Your task to perform on an android device: Open a new Chrome incognito tab Image 0: 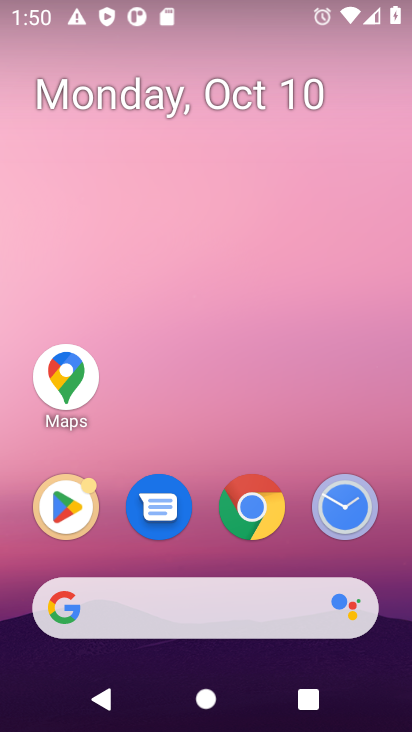
Step 0: press home button
Your task to perform on an android device: Open a new Chrome incognito tab Image 1: 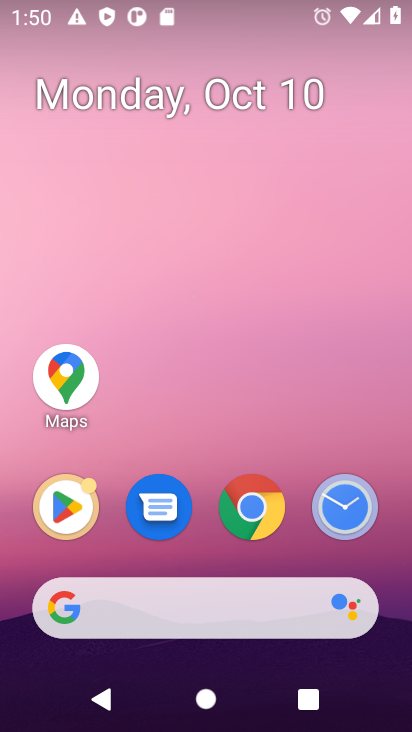
Step 1: drag from (375, 561) to (367, 113)
Your task to perform on an android device: Open a new Chrome incognito tab Image 2: 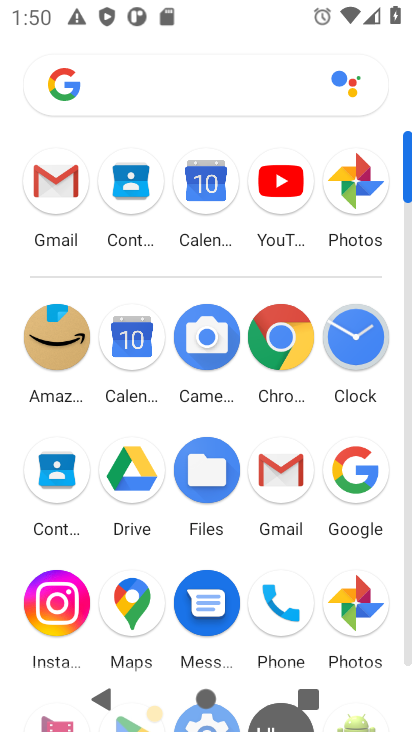
Step 2: click (282, 355)
Your task to perform on an android device: Open a new Chrome incognito tab Image 3: 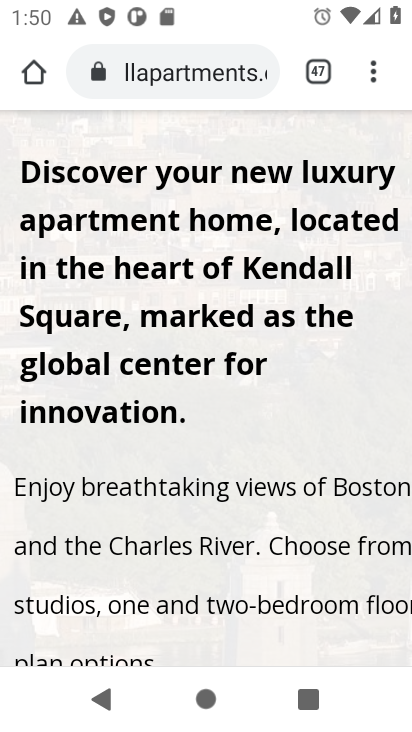
Step 3: click (374, 79)
Your task to perform on an android device: Open a new Chrome incognito tab Image 4: 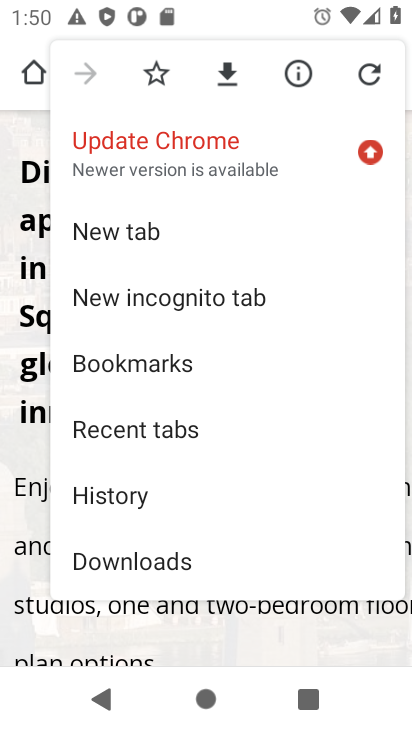
Step 4: click (200, 304)
Your task to perform on an android device: Open a new Chrome incognito tab Image 5: 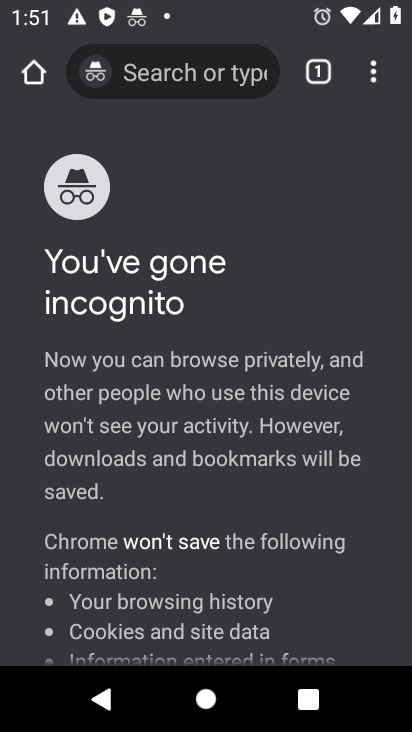
Step 5: task complete